Your task to perform on an android device: uninstall "ColorNote Notepad Notes" Image 0: 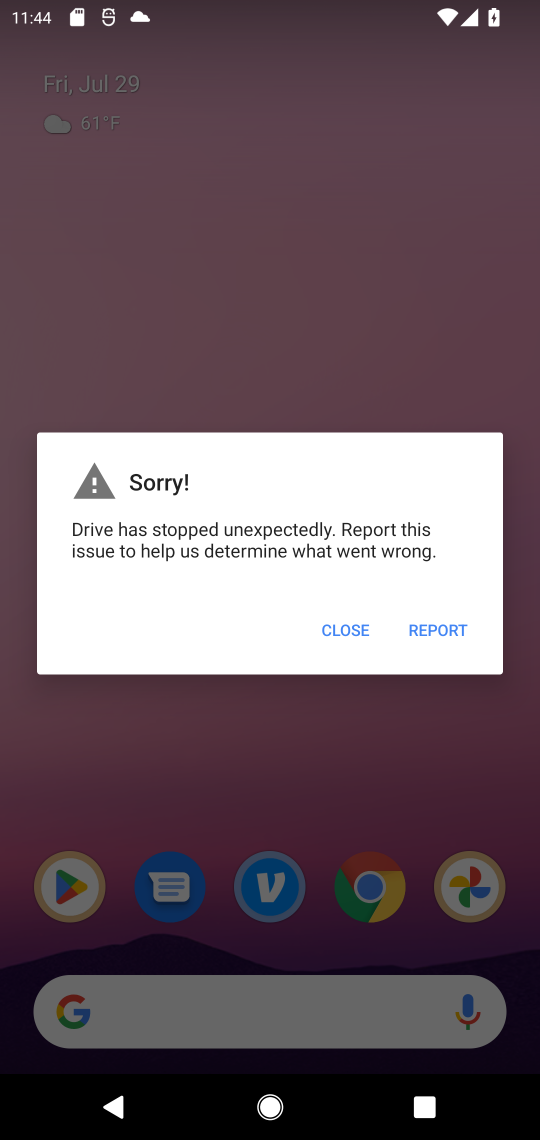
Step 0: press home button
Your task to perform on an android device: uninstall "ColorNote Notepad Notes" Image 1: 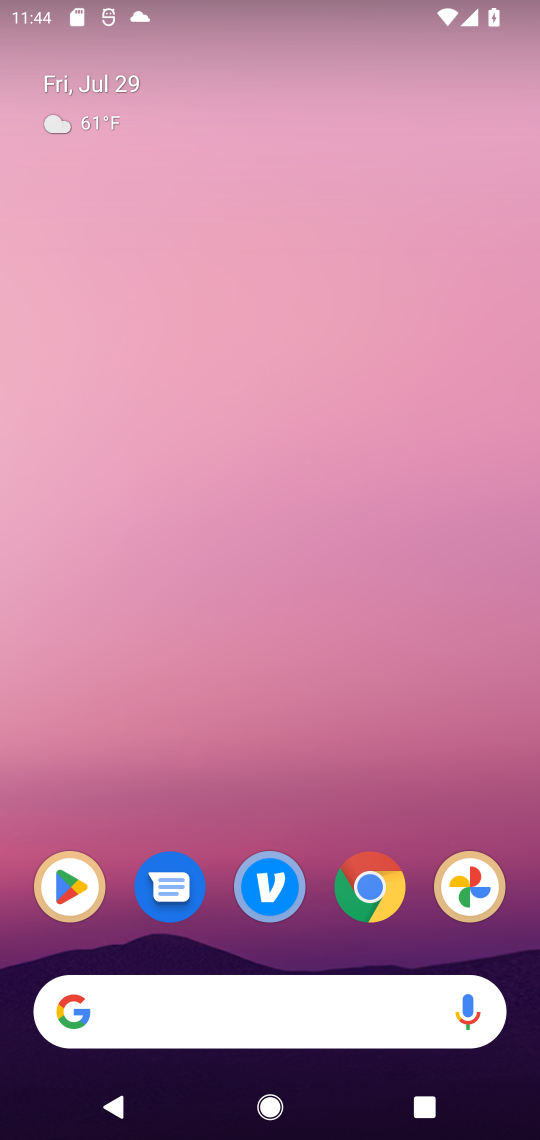
Step 1: drag from (206, 1027) to (381, 301)
Your task to perform on an android device: uninstall "ColorNote Notepad Notes" Image 2: 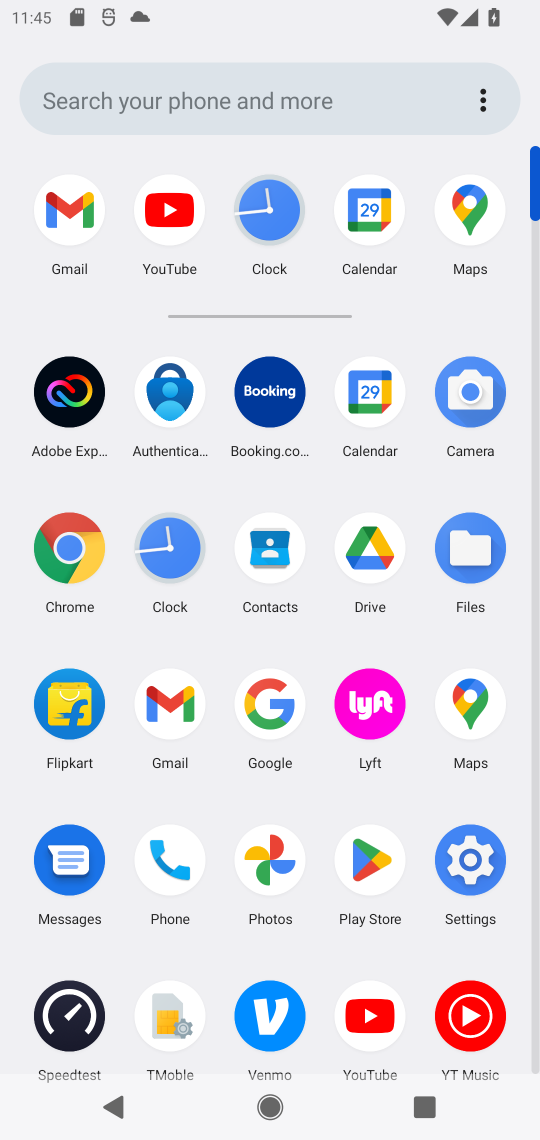
Step 2: click (366, 853)
Your task to perform on an android device: uninstall "ColorNote Notepad Notes" Image 3: 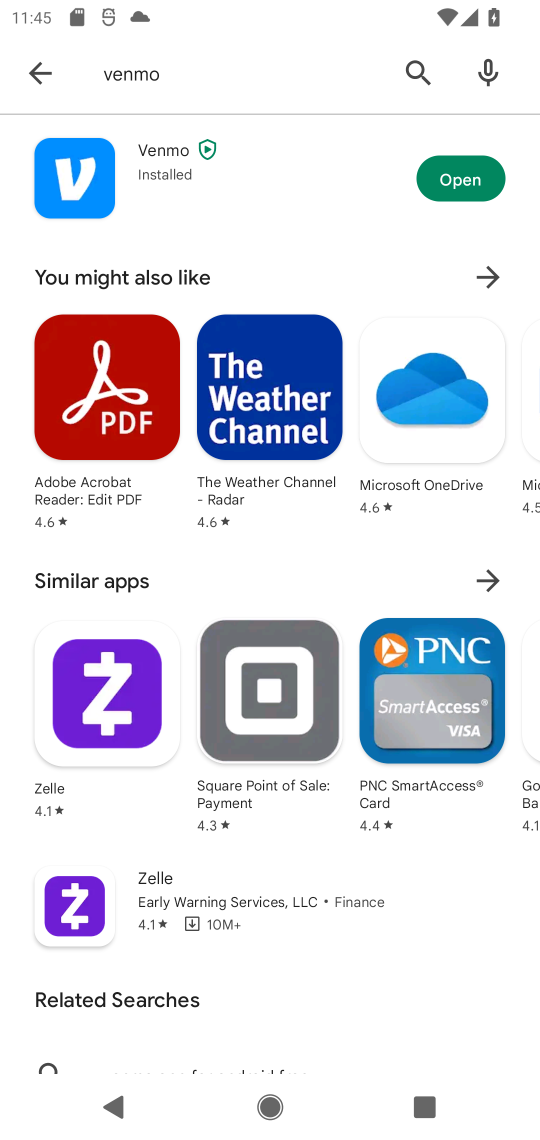
Step 3: click (420, 77)
Your task to perform on an android device: uninstall "ColorNote Notepad Notes" Image 4: 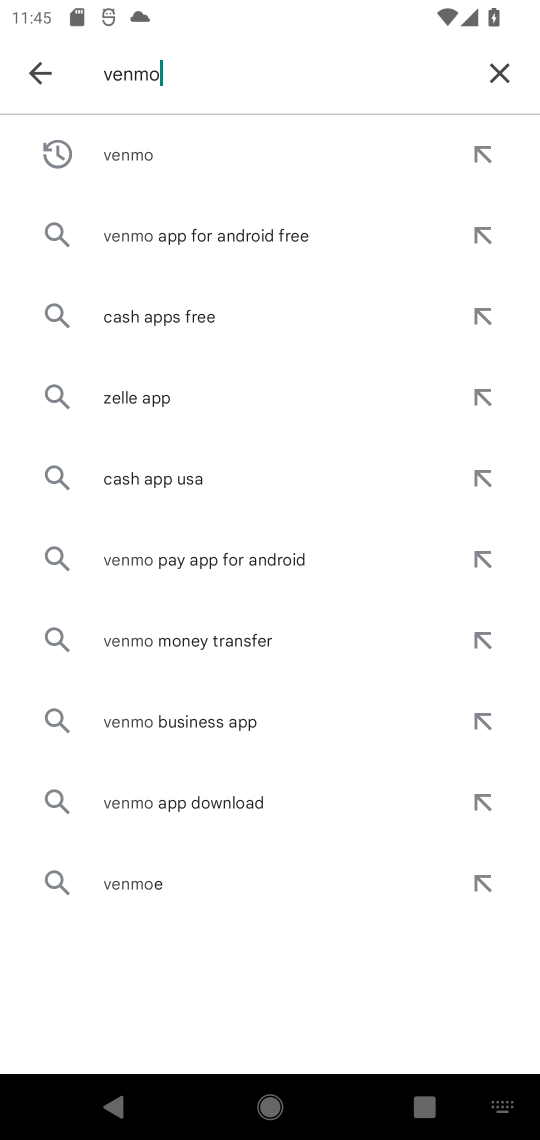
Step 4: click (499, 66)
Your task to perform on an android device: uninstall "ColorNote Notepad Notes" Image 5: 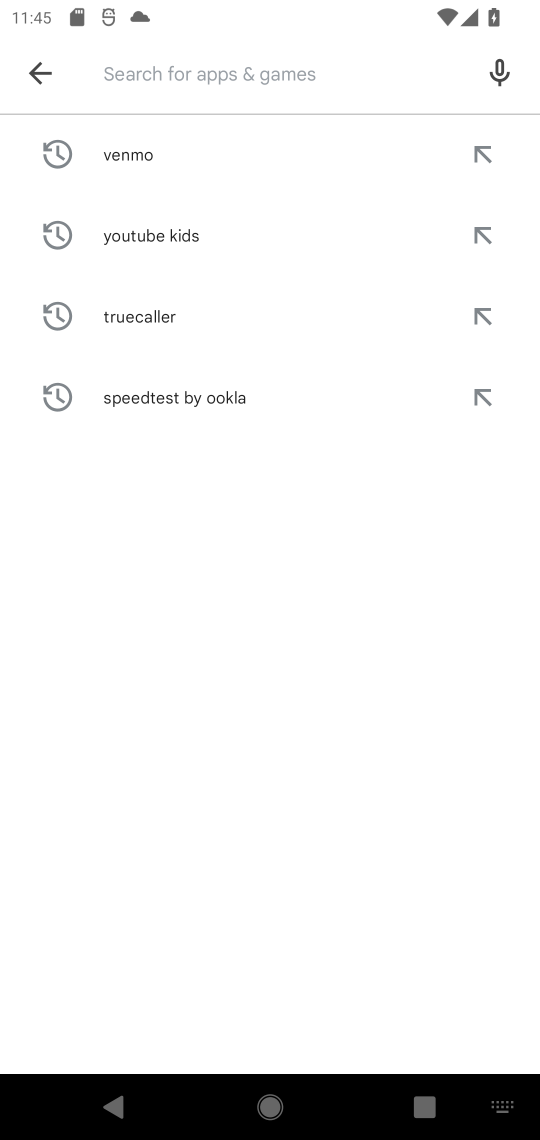
Step 5: type "ColorNote Notepad Notes"
Your task to perform on an android device: uninstall "ColorNote Notepad Notes" Image 6: 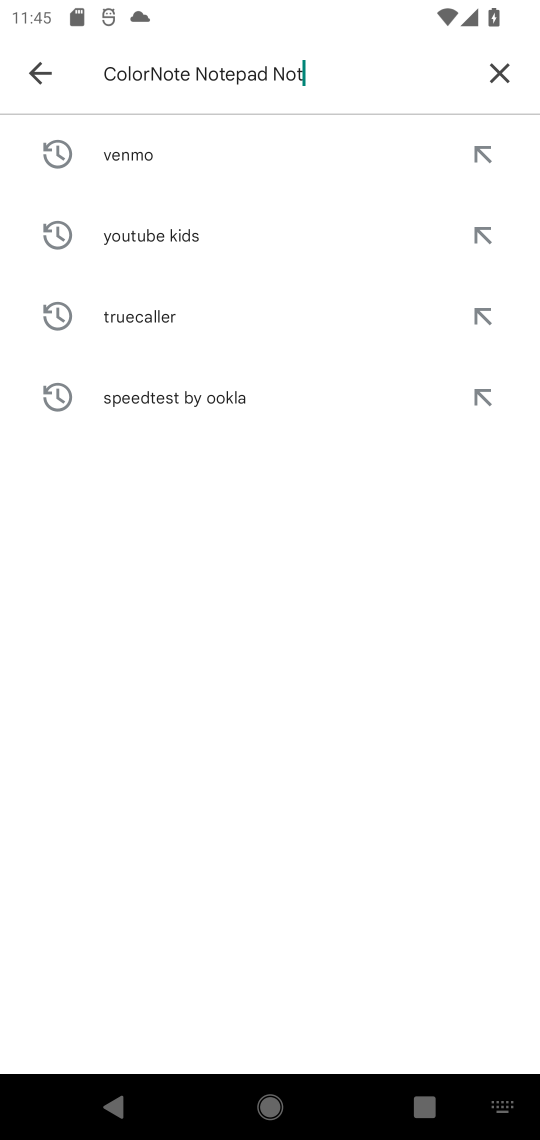
Step 6: type ""
Your task to perform on an android device: uninstall "ColorNote Notepad Notes" Image 7: 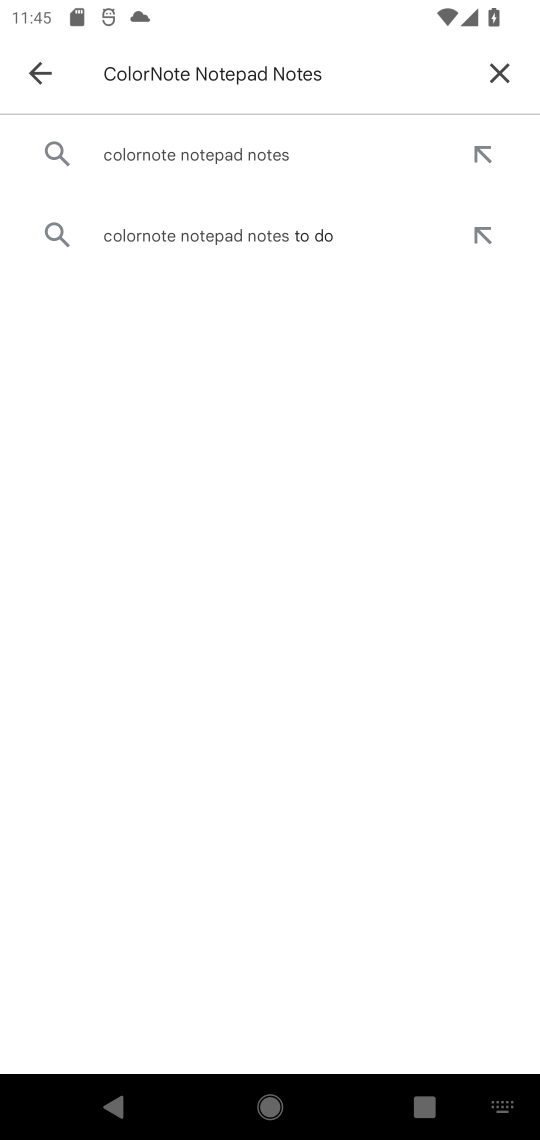
Step 7: click (217, 159)
Your task to perform on an android device: uninstall "ColorNote Notepad Notes" Image 8: 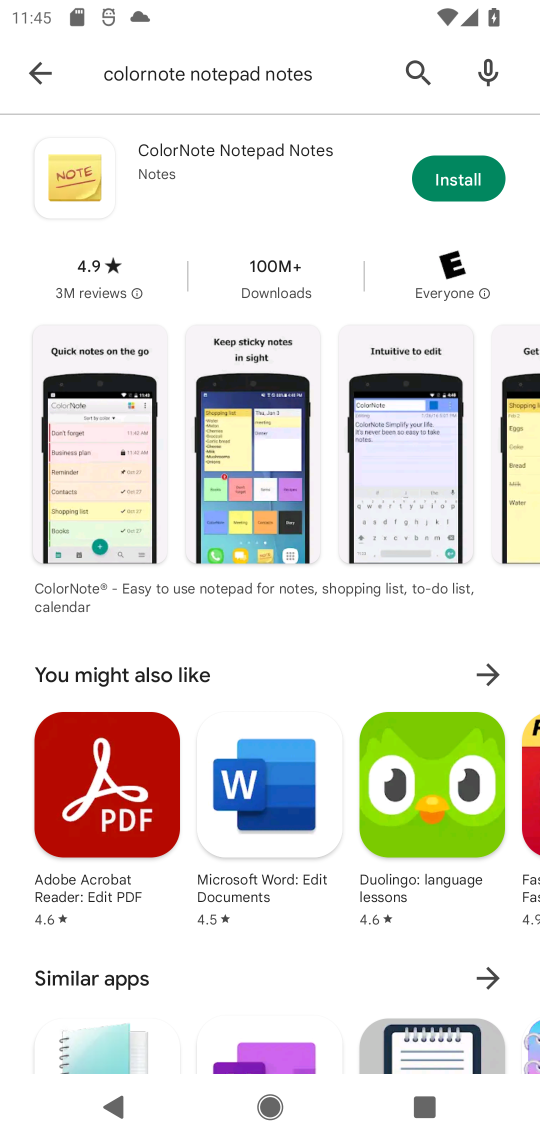
Step 8: task complete